Your task to perform on an android device: turn on translation in the chrome app Image 0: 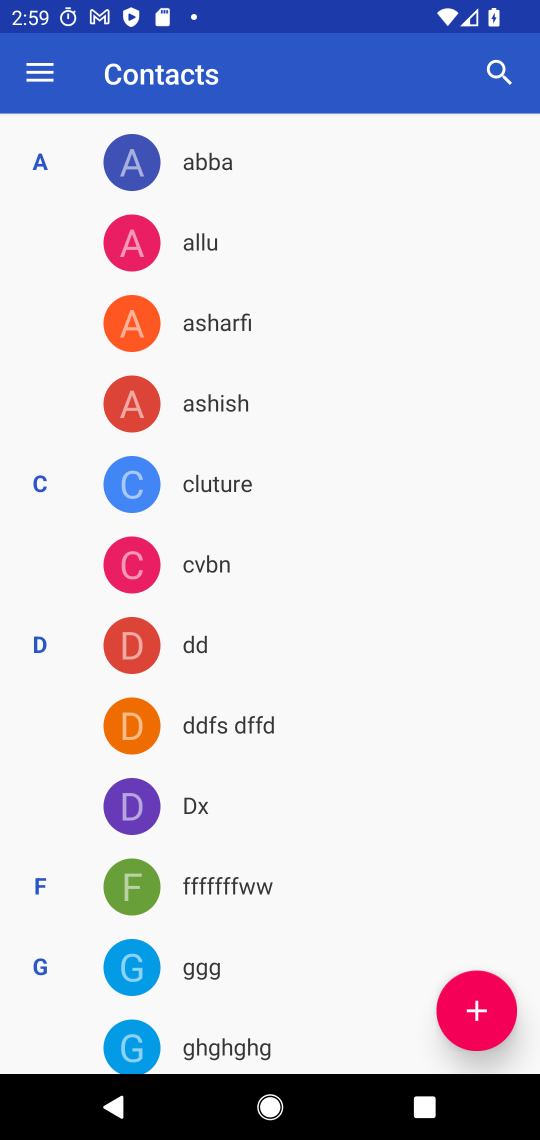
Step 0: press home button
Your task to perform on an android device: turn on translation in the chrome app Image 1: 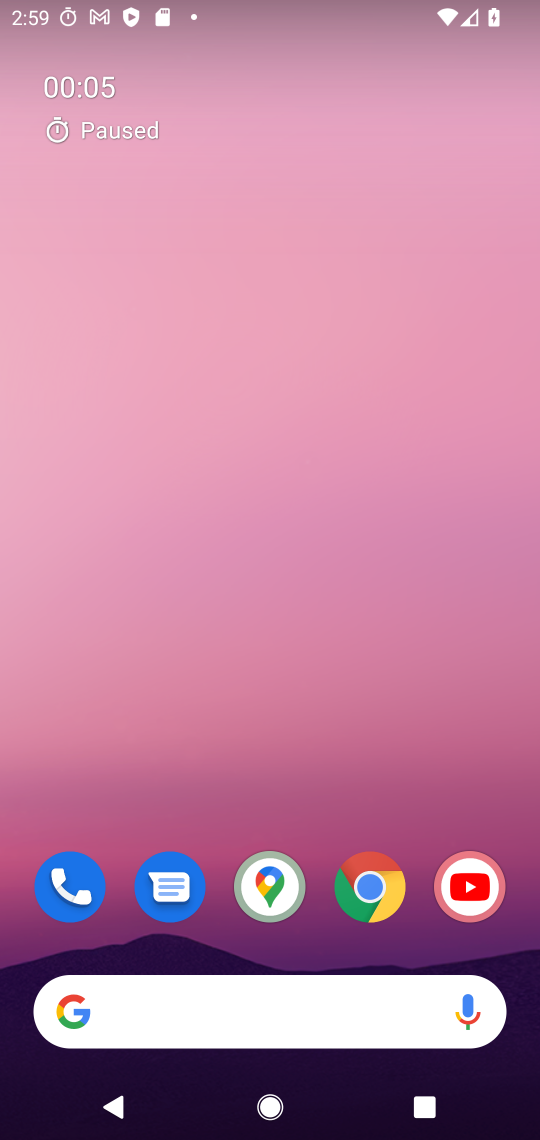
Step 1: click (395, 885)
Your task to perform on an android device: turn on translation in the chrome app Image 2: 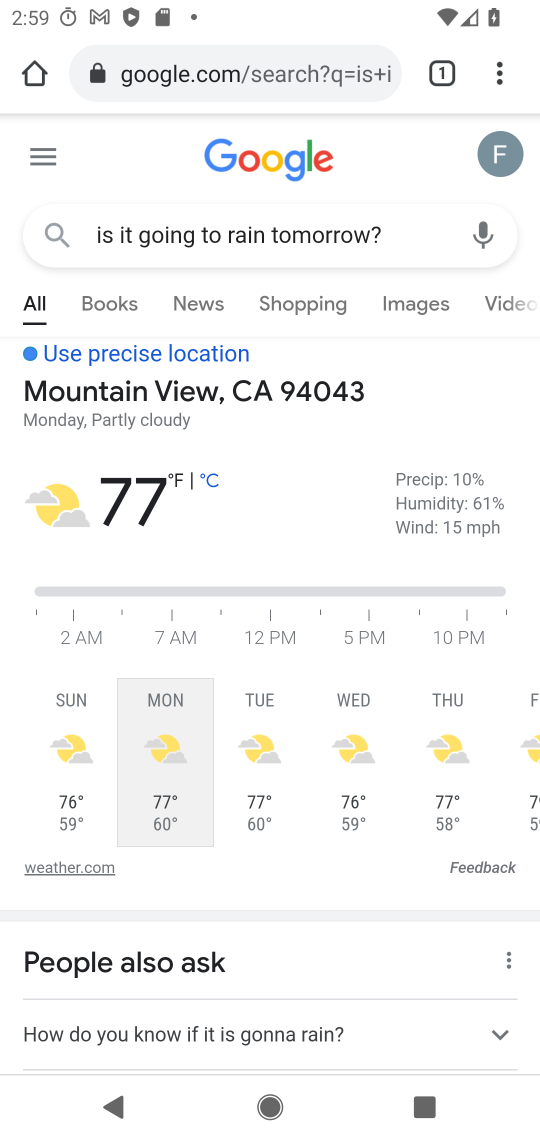
Step 2: click (496, 57)
Your task to perform on an android device: turn on translation in the chrome app Image 3: 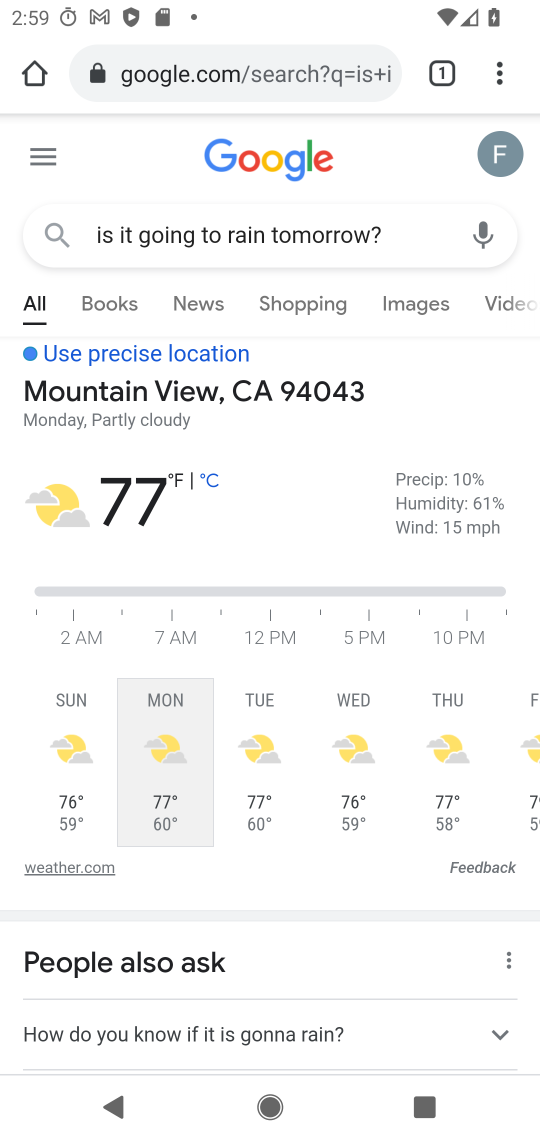
Step 3: click (501, 80)
Your task to perform on an android device: turn on translation in the chrome app Image 4: 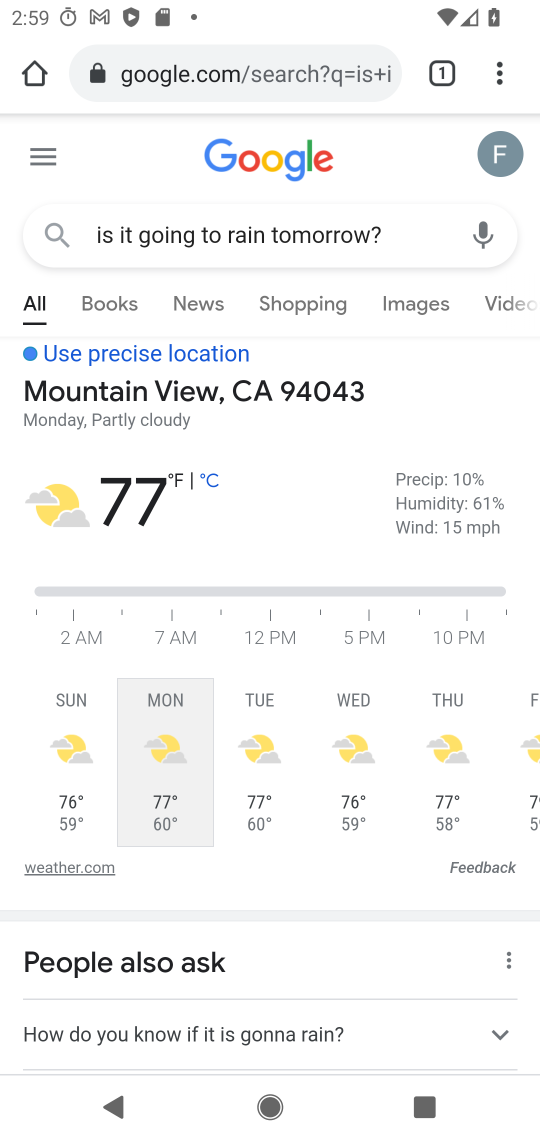
Step 4: click (501, 80)
Your task to perform on an android device: turn on translation in the chrome app Image 5: 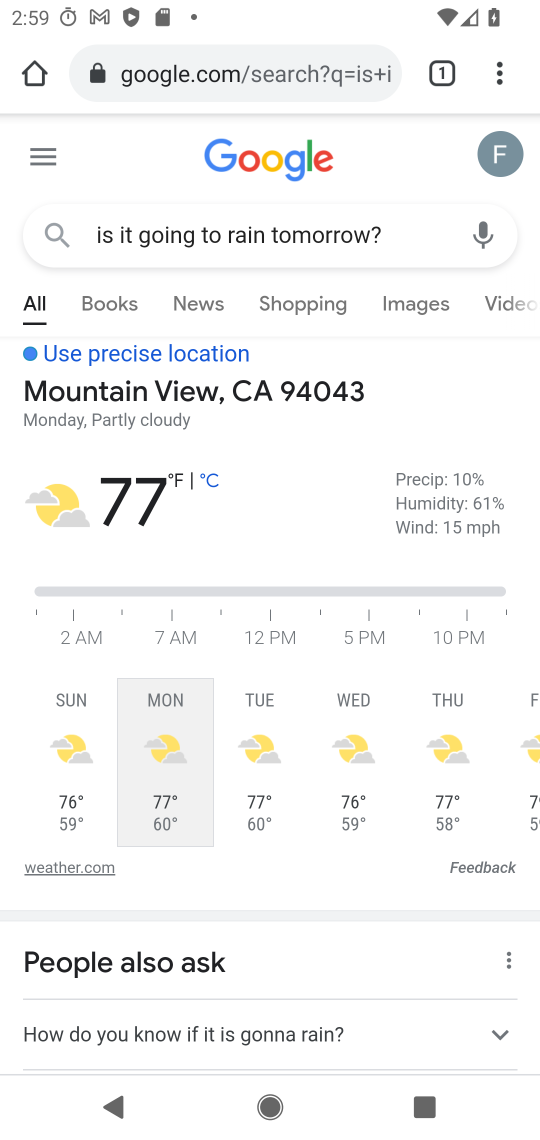
Step 5: click (498, 75)
Your task to perform on an android device: turn on translation in the chrome app Image 6: 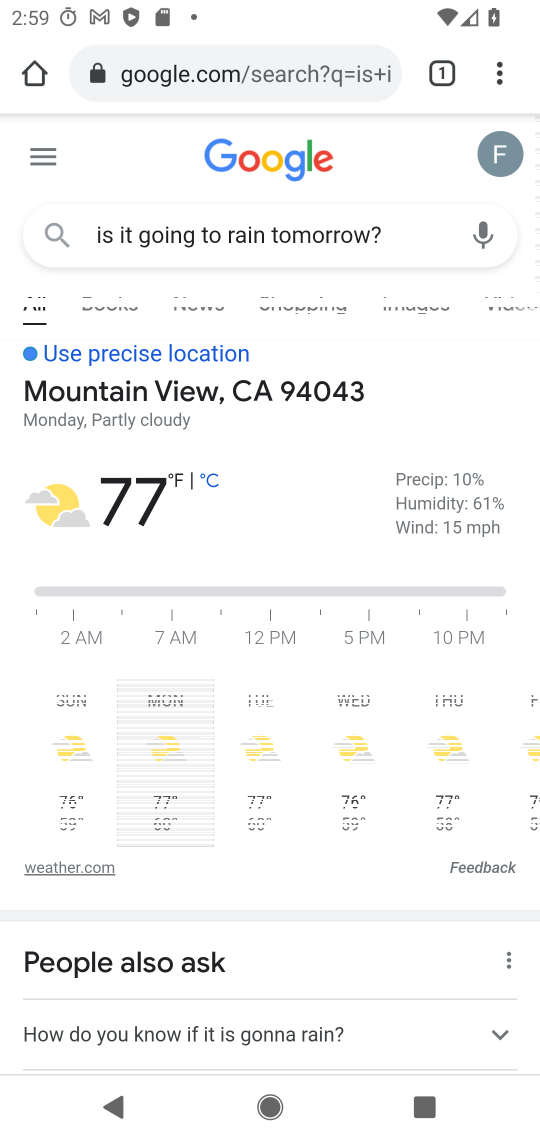
Step 6: click (500, 77)
Your task to perform on an android device: turn on translation in the chrome app Image 7: 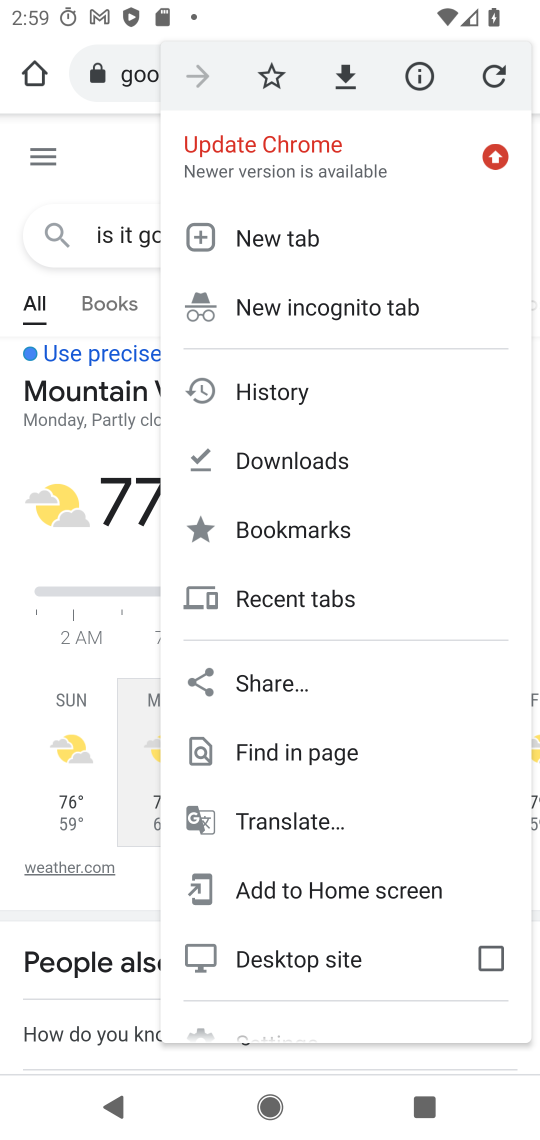
Step 7: drag from (301, 938) to (301, 361)
Your task to perform on an android device: turn on translation in the chrome app Image 8: 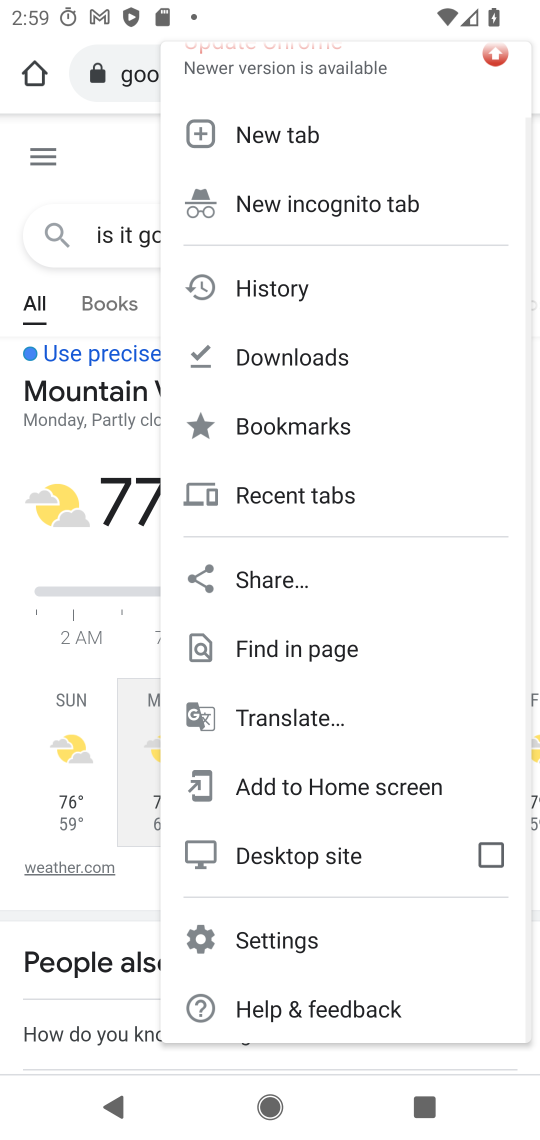
Step 8: click (300, 950)
Your task to perform on an android device: turn on translation in the chrome app Image 9: 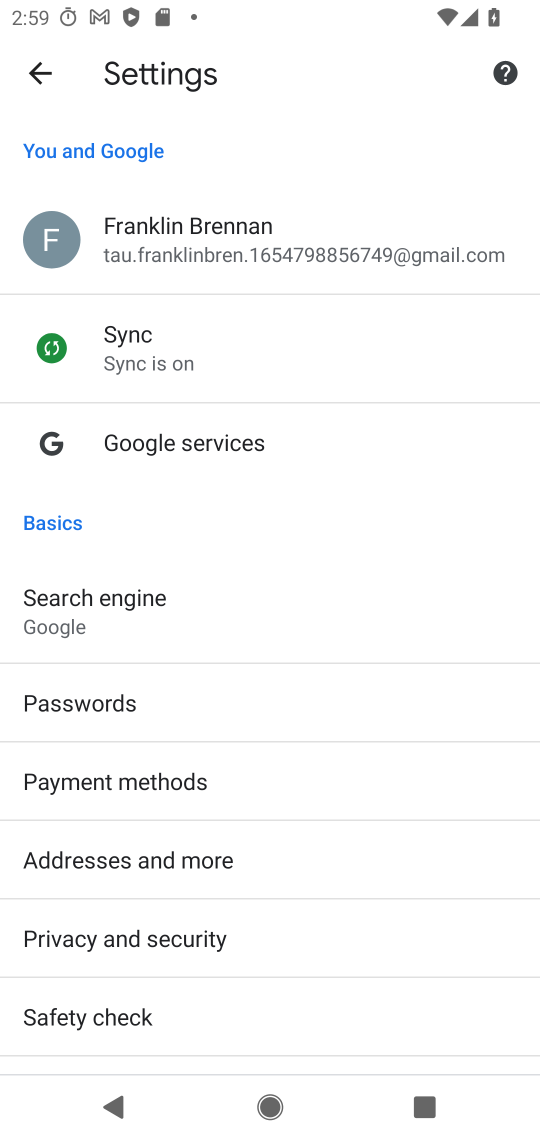
Step 9: drag from (85, 1026) to (162, 477)
Your task to perform on an android device: turn on translation in the chrome app Image 10: 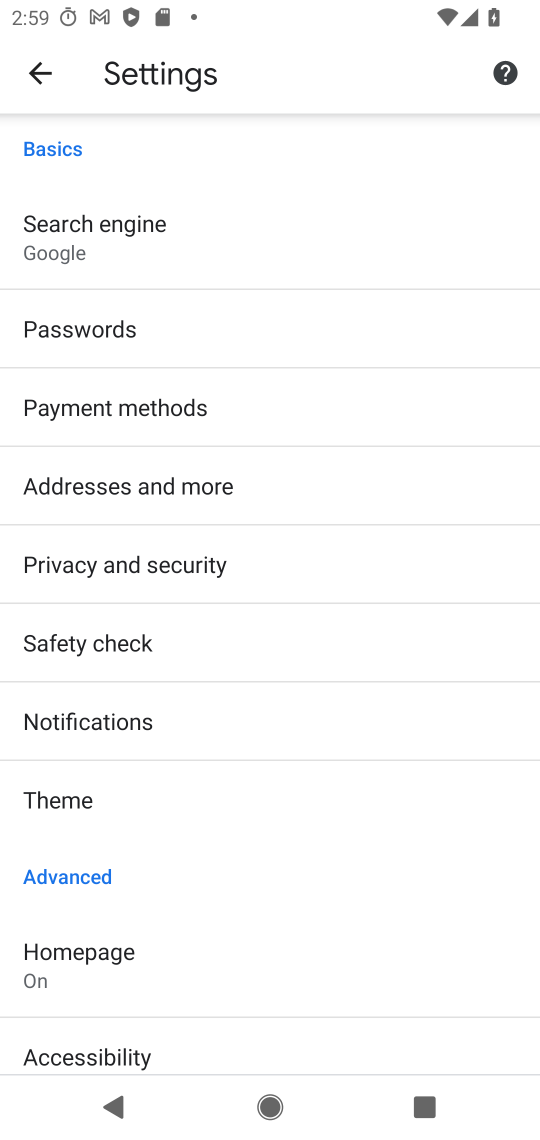
Step 10: drag from (109, 1049) to (176, 502)
Your task to perform on an android device: turn on translation in the chrome app Image 11: 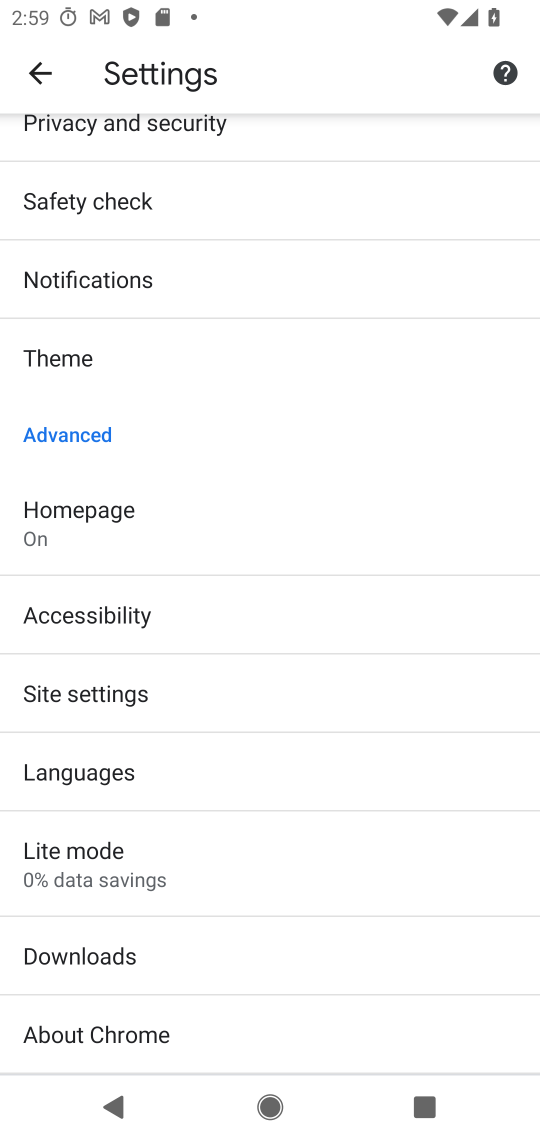
Step 11: click (100, 862)
Your task to perform on an android device: turn on translation in the chrome app Image 12: 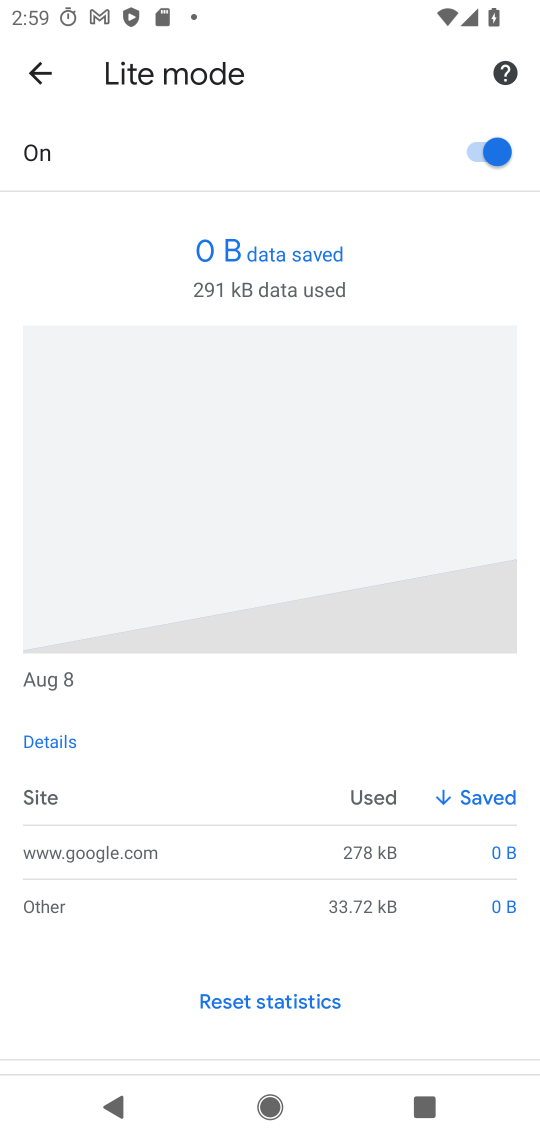
Step 12: click (24, 83)
Your task to perform on an android device: turn on translation in the chrome app Image 13: 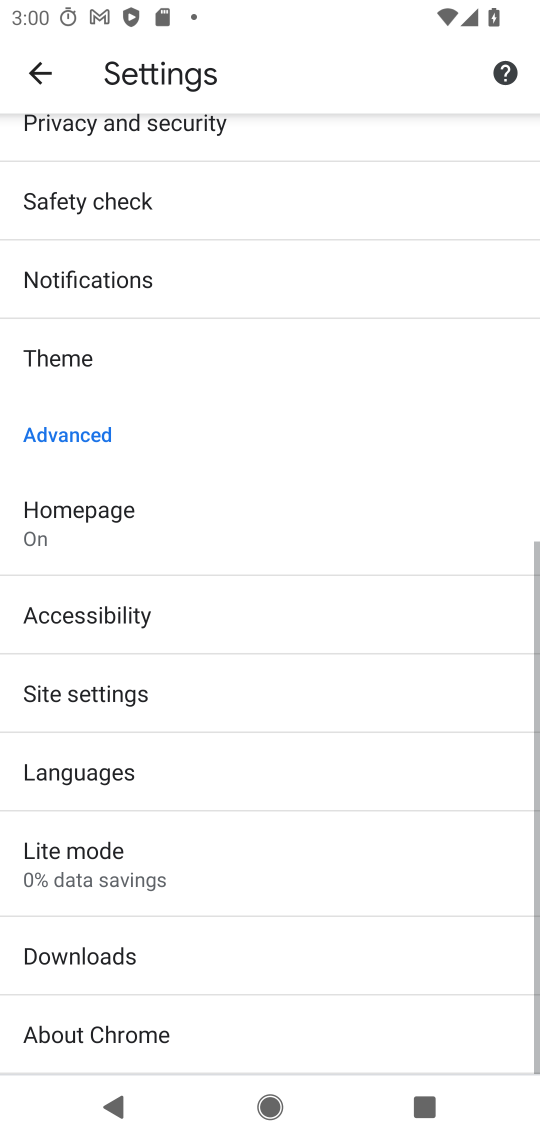
Step 13: click (65, 788)
Your task to perform on an android device: turn on translation in the chrome app Image 14: 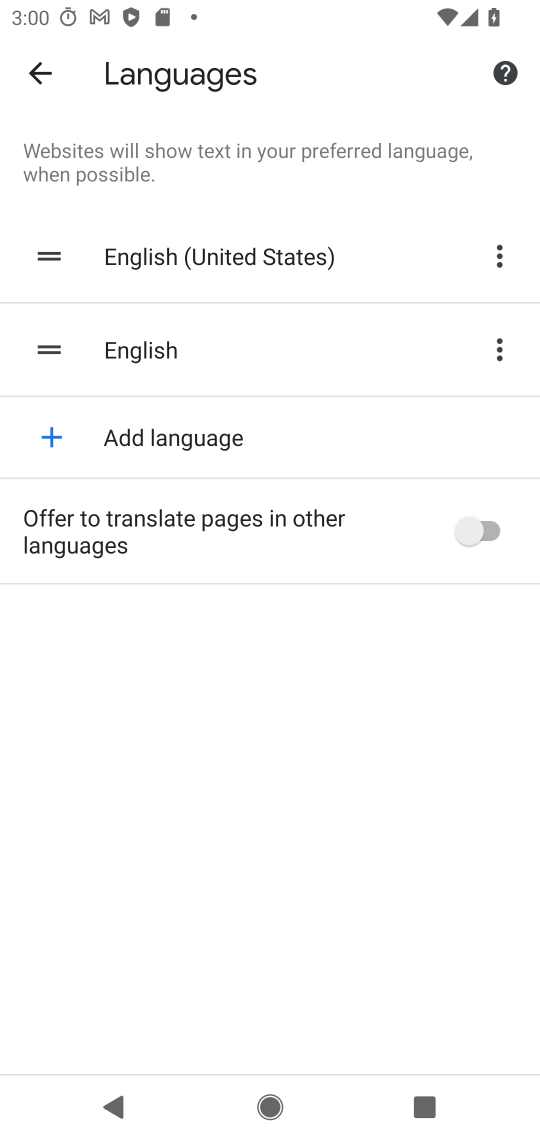
Step 14: click (495, 527)
Your task to perform on an android device: turn on translation in the chrome app Image 15: 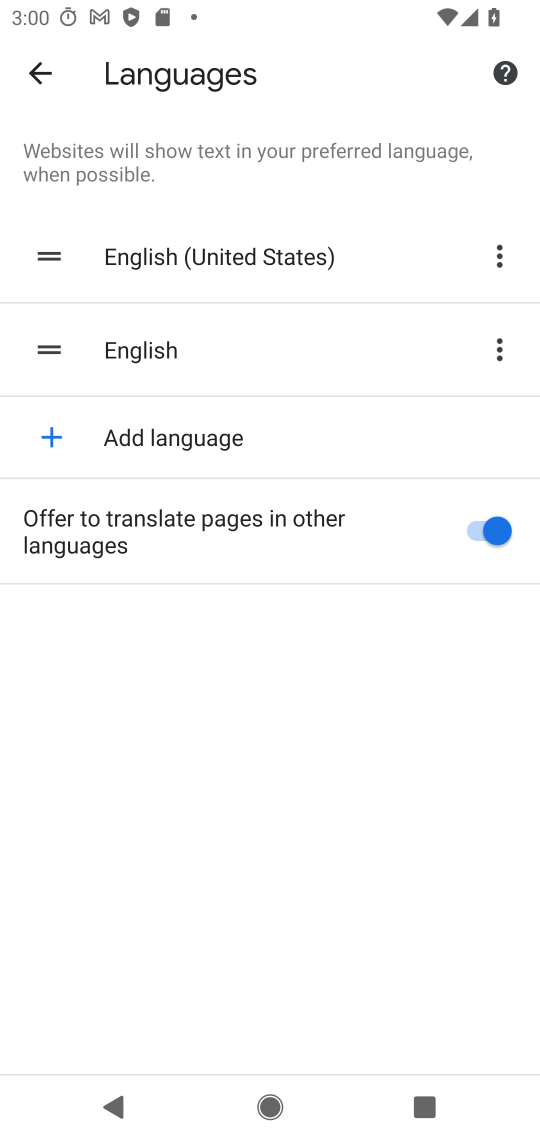
Step 15: task complete